Your task to perform on an android device: Open Android settings Image 0: 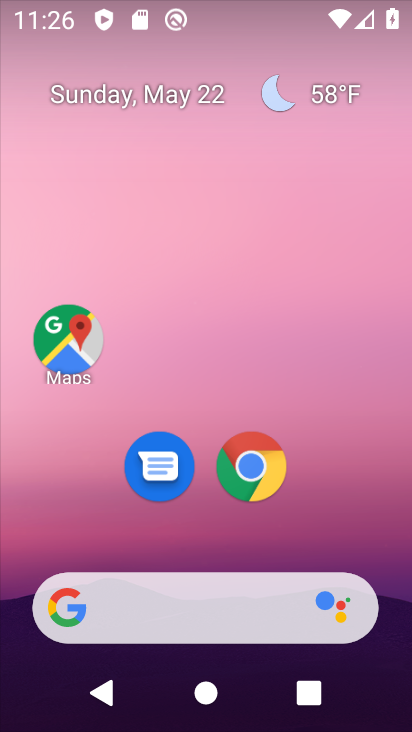
Step 0: drag from (215, 538) to (252, 43)
Your task to perform on an android device: Open Android settings Image 1: 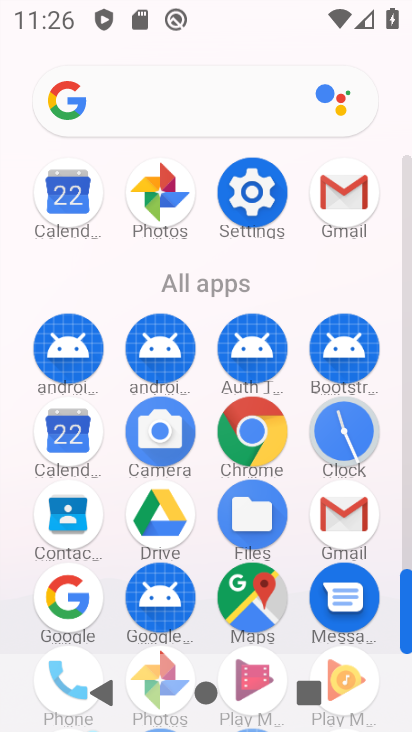
Step 1: click (249, 208)
Your task to perform on an android device: Open Android settings Image 2: 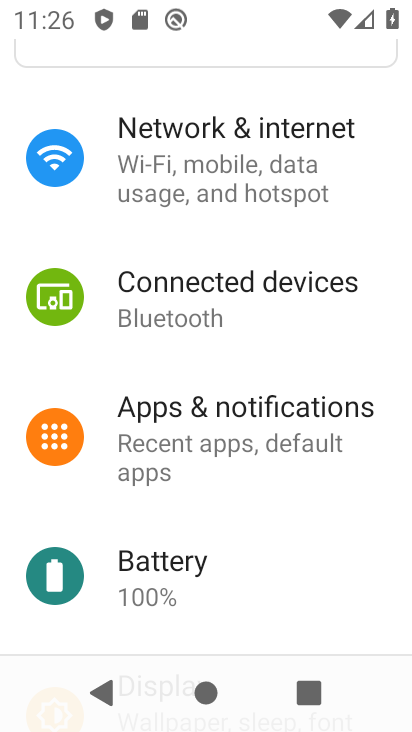
Step 2: task complete